Your task to perform on an android device: Go to display settings Image 0: 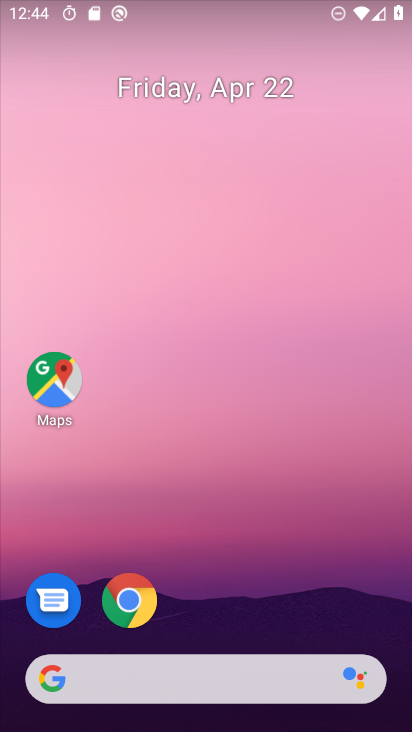
Step 0: drag from (245, 602) to (215, 143)
Your task to perform on an android device: Go to display settings Image 1: 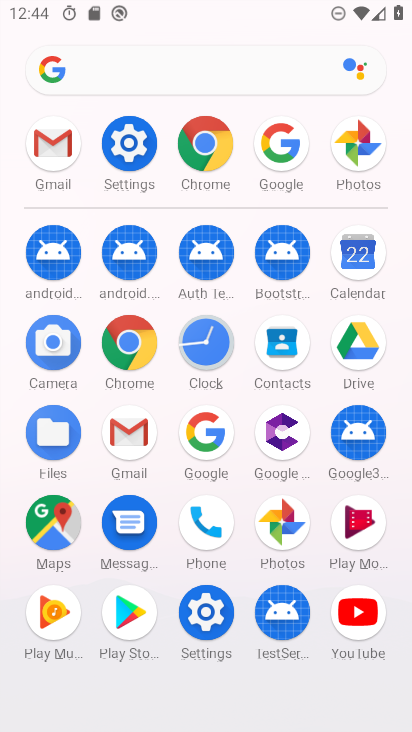
Step 1: click (130, 143)
Your task to perform on an android device: Go to display settings Image 2: 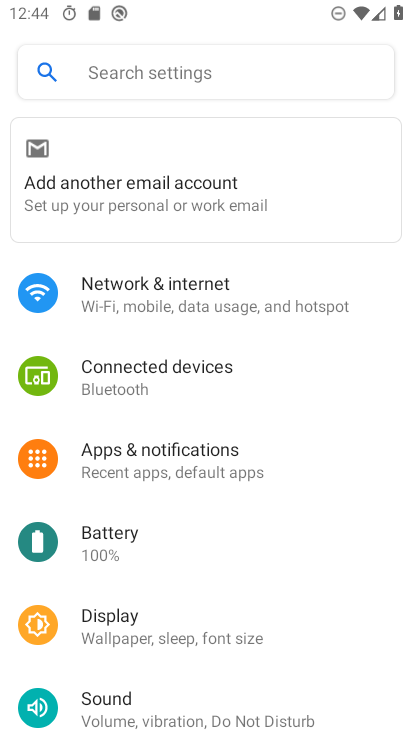
Step 2: click (170, 639)
Your task to perform on an android device: Go to display settings Image 3: 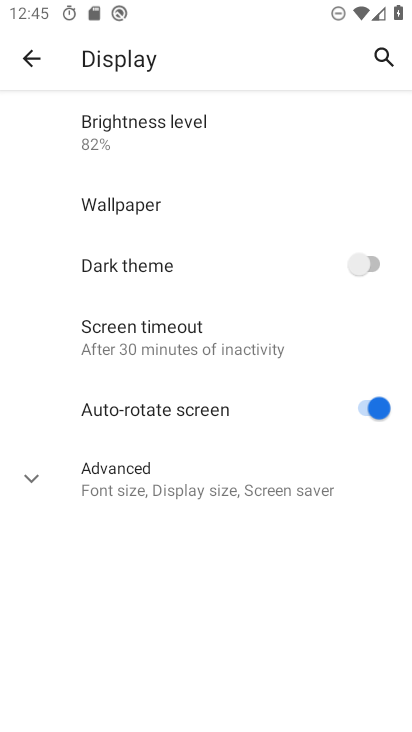
Step 3: task complete